Your task to perform on an android device: Open Youtube and go to "Your channel" Image 0: 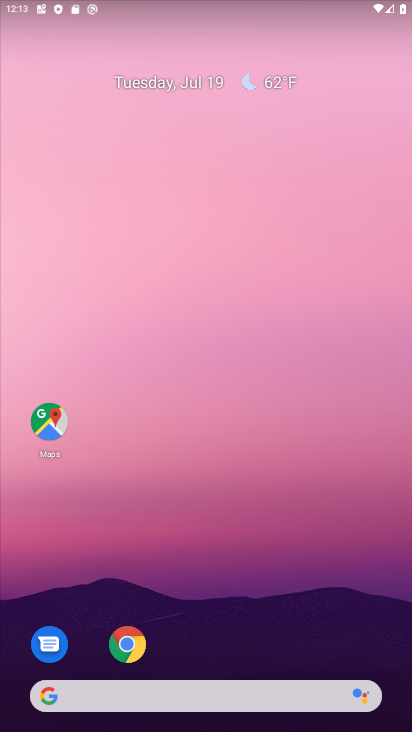
Step 0: drag from (230, 578) to (190, 49)
Your task to perform on an android device: Open Youtube and go to "Your channel" Image 1: 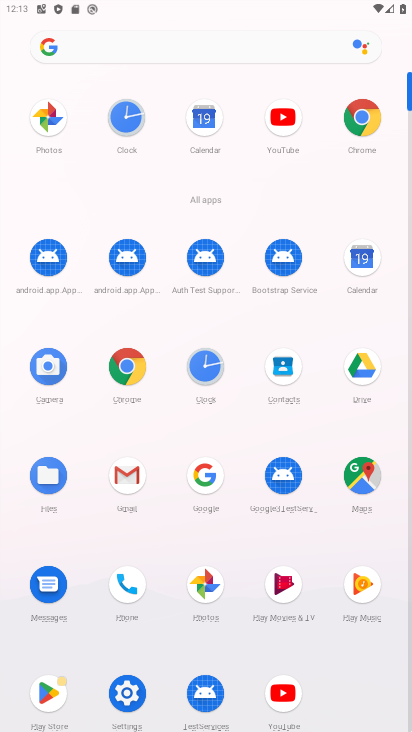
Step 1: click (285, 692)
Your task to perform on an android device: Open Youtube and go to "Your channel" Image 2: 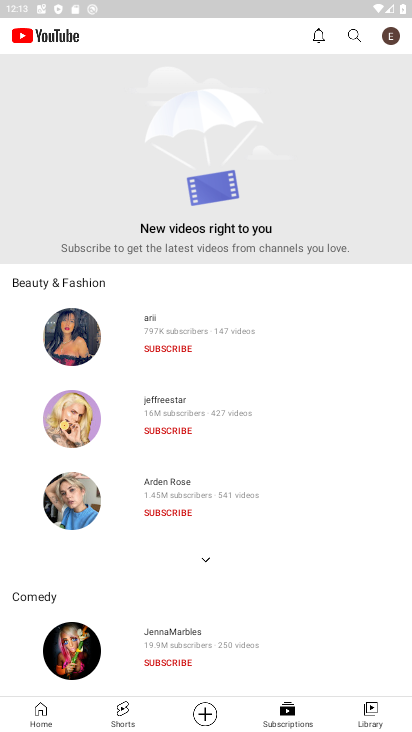
Step 2: click (389, 29)
Your task to perform on an android device: Open Youtube and go to "Your channel" Image 3: 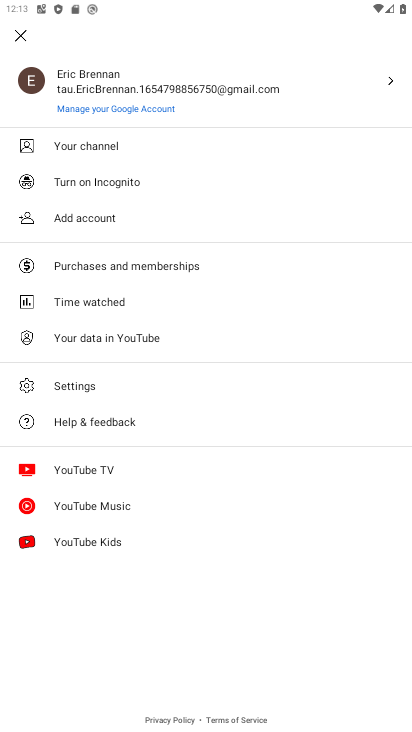
Step 3: click (79, 154)
Your task to perform on an android device: Open Youtube and go to "Your channel" Image 4: 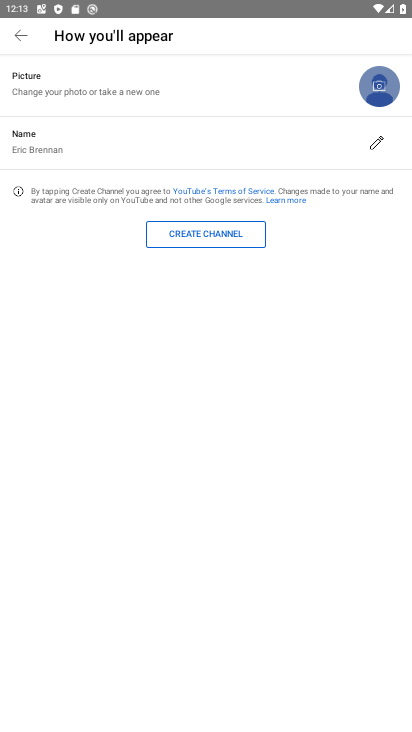
Step 4: task complete